Your task to perform on an android device: Search for a new grill on Home Depot Image 0: 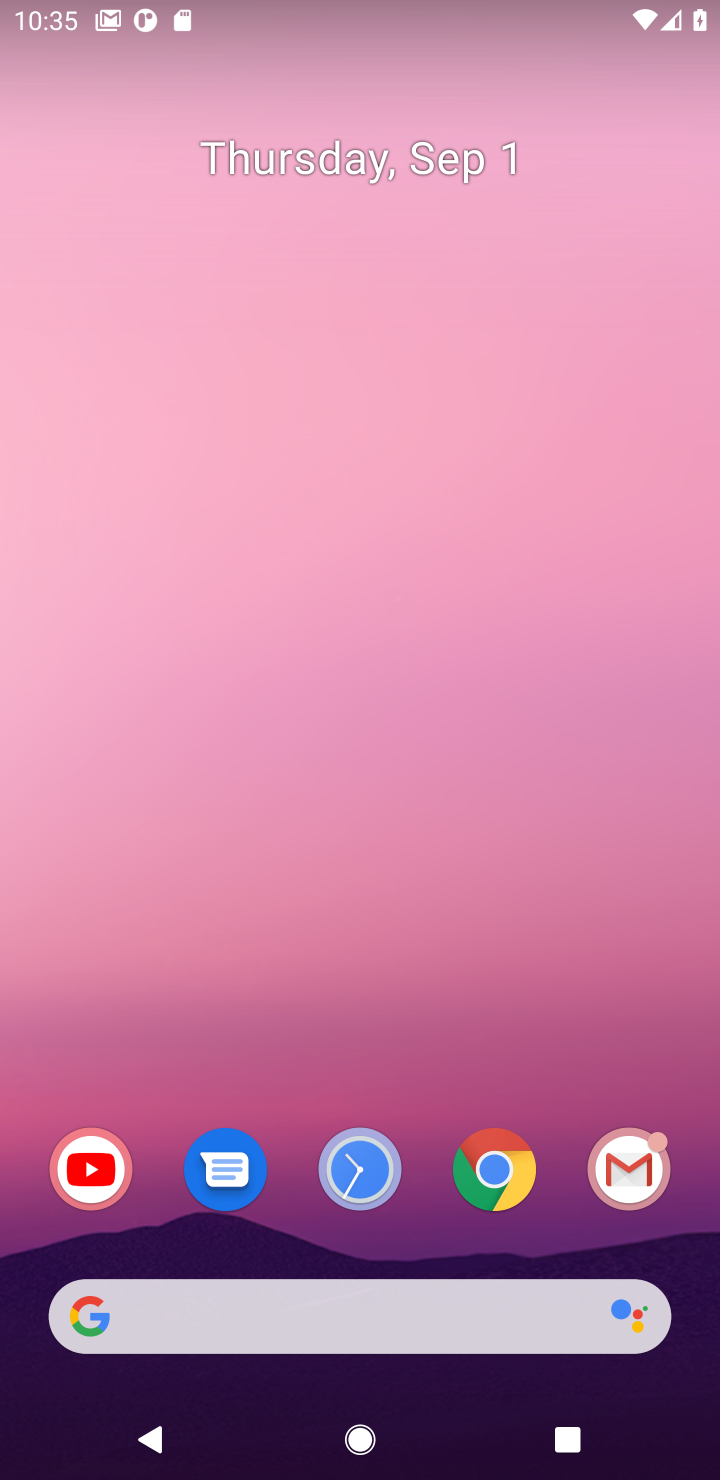
Step 0: drag from (436, 1221) to (483, 94)
Your task to perform on an android device: Search for a new grill on Home Depot Image 1: 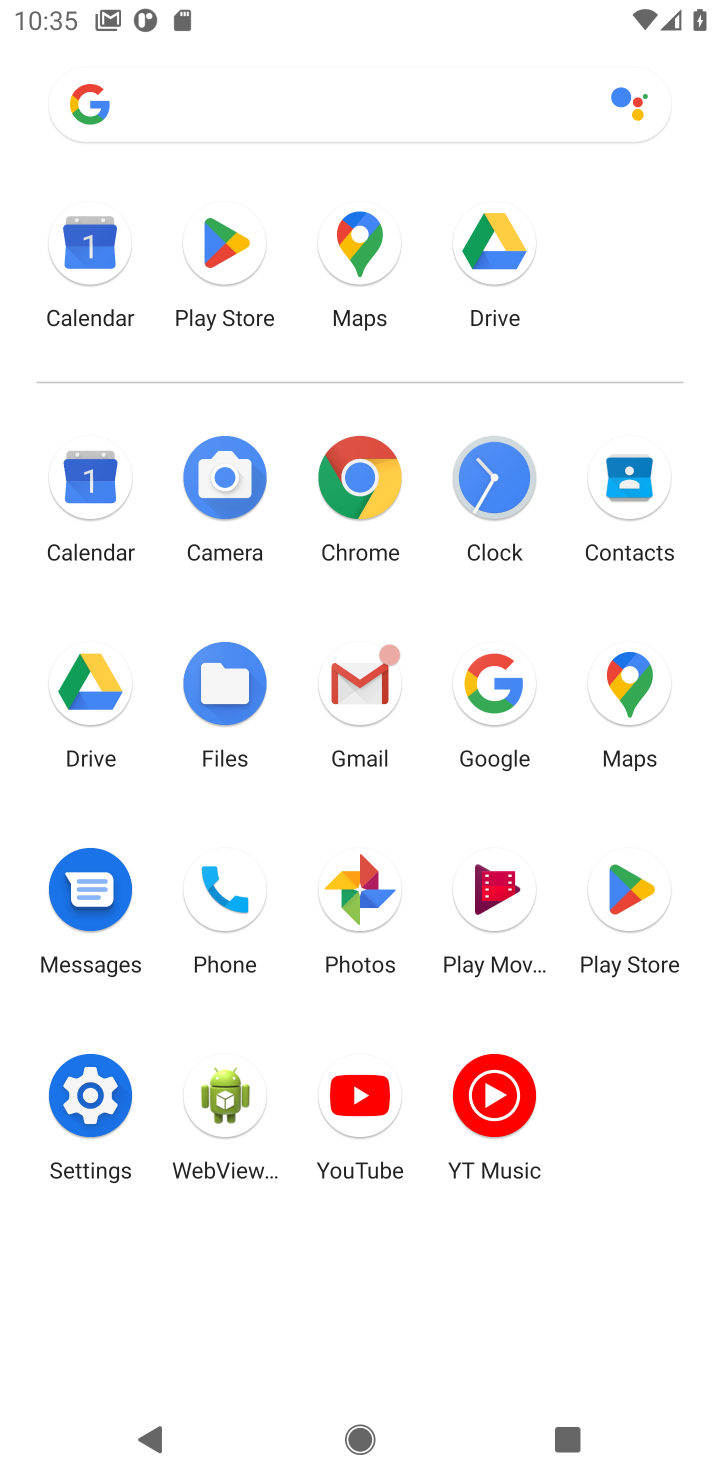
Step 1: click (364, 470)
Your task to perform on an android device: Search for a new grill on Home Depot Image 2: 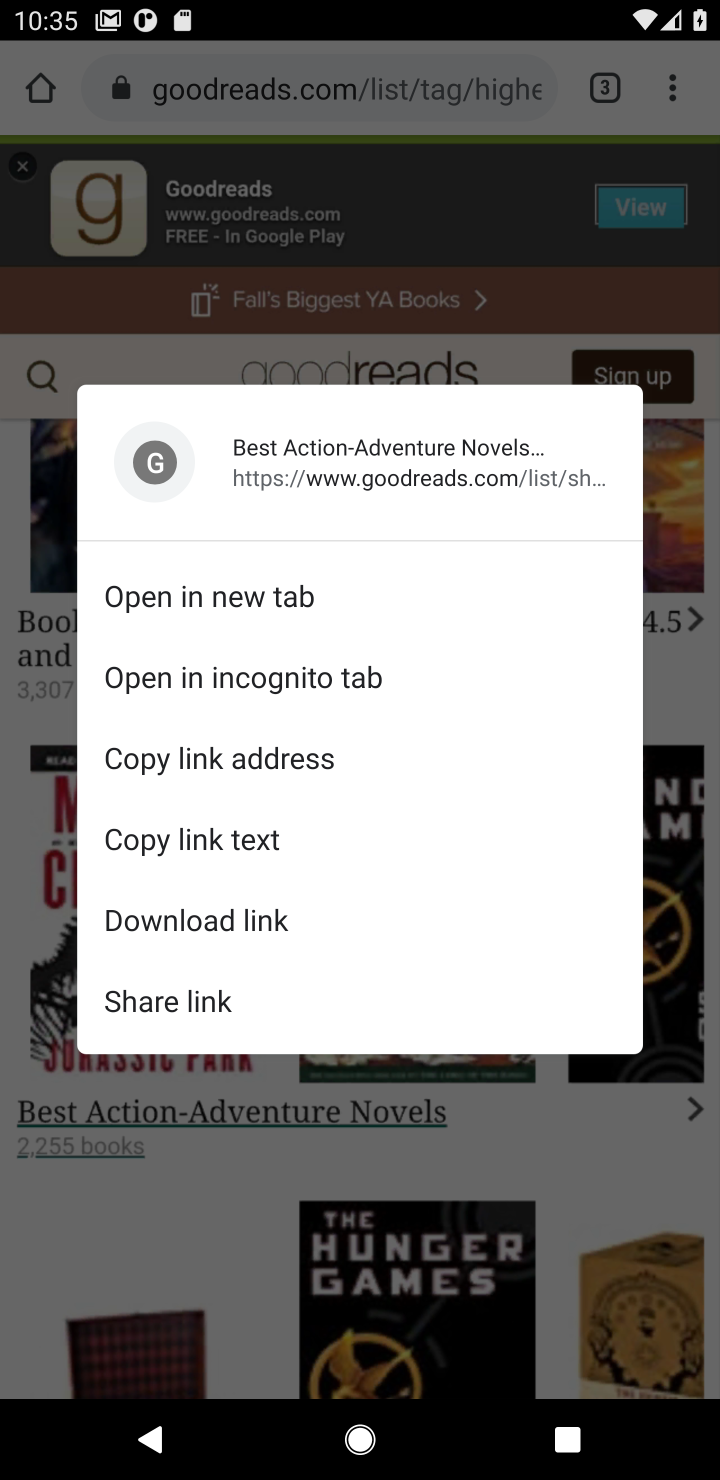
Step 2: click (436, 86)
Your task to perform on an android device: Search for a new grill on Home Depot Image 3: 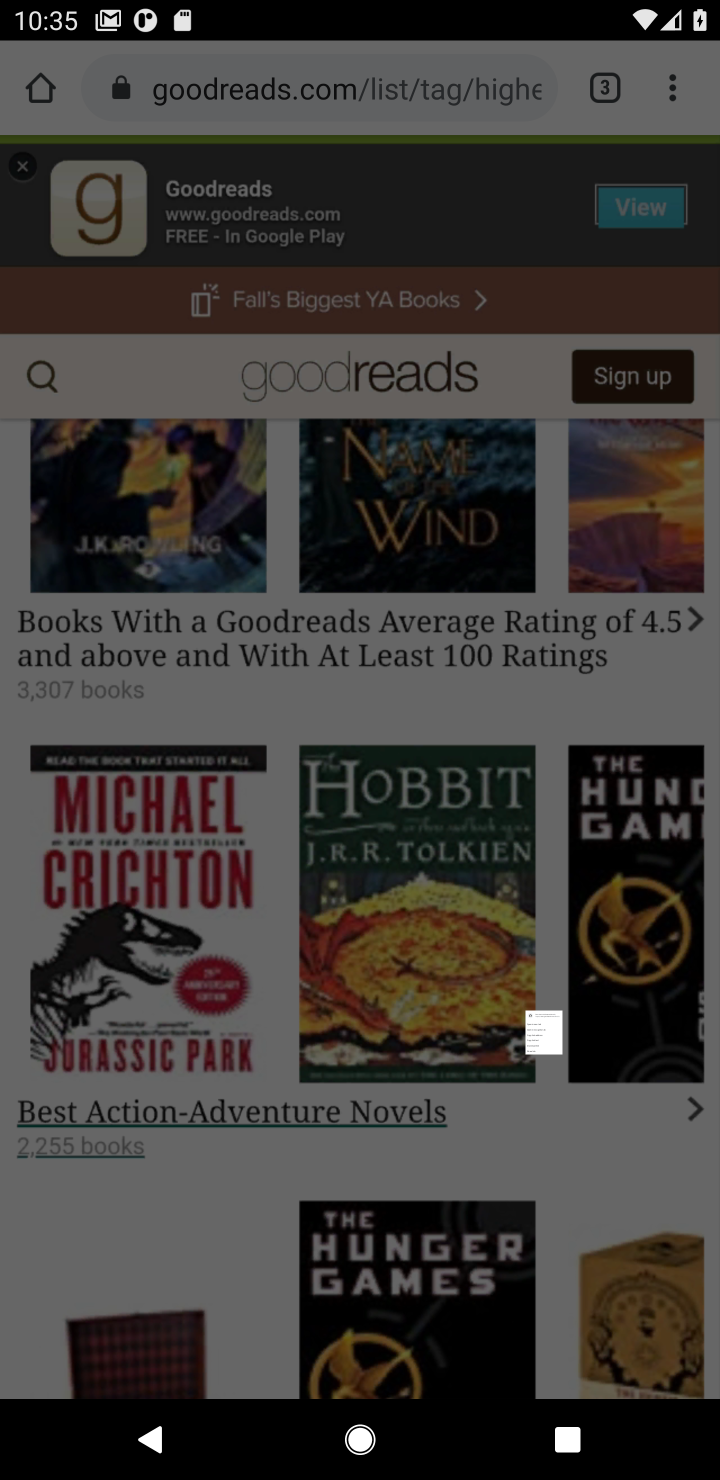
Step 3: click (374, 92)
Your task to perform on an android device: Search for a new grill on Home Depot Image 4: 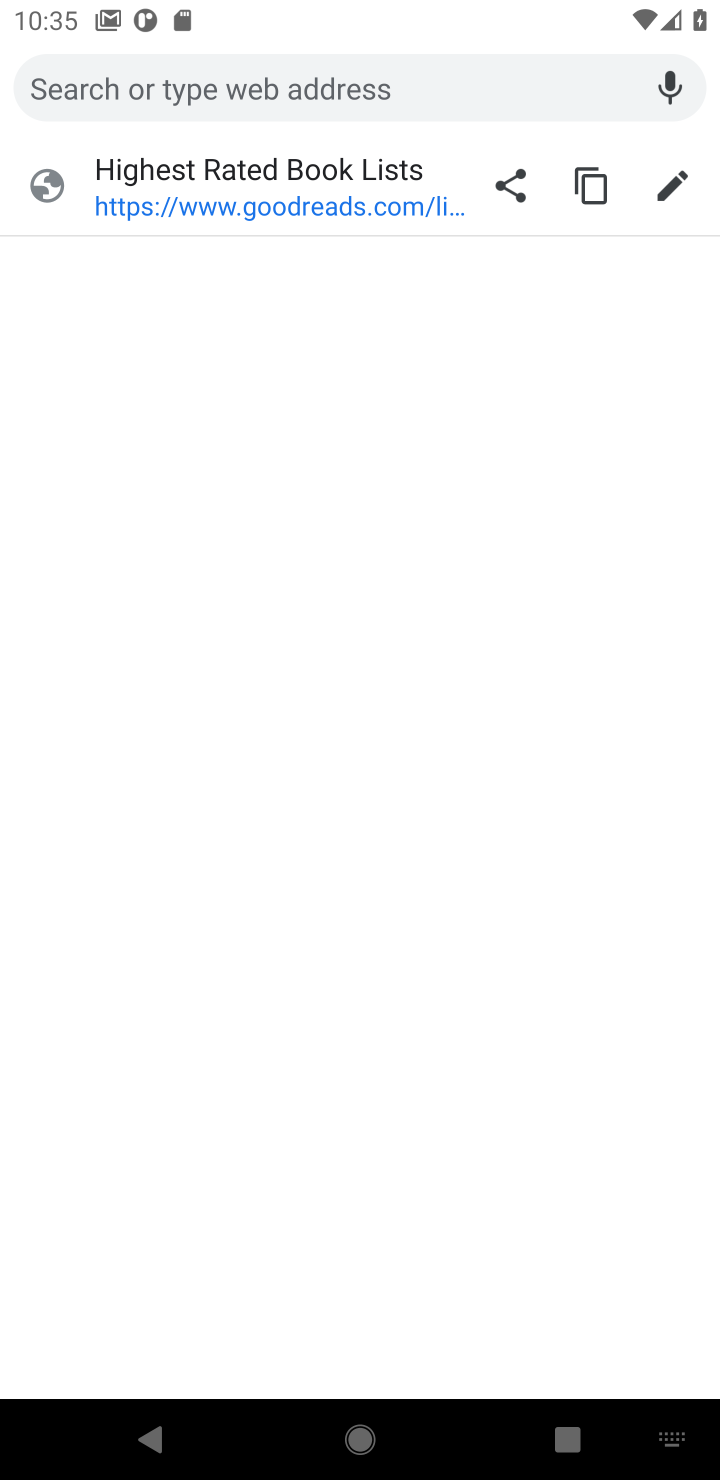
Step 4: type "new grill on Home Depot"
Your task to perform on an android device: Search for a new grill on Home Depot Image 5: 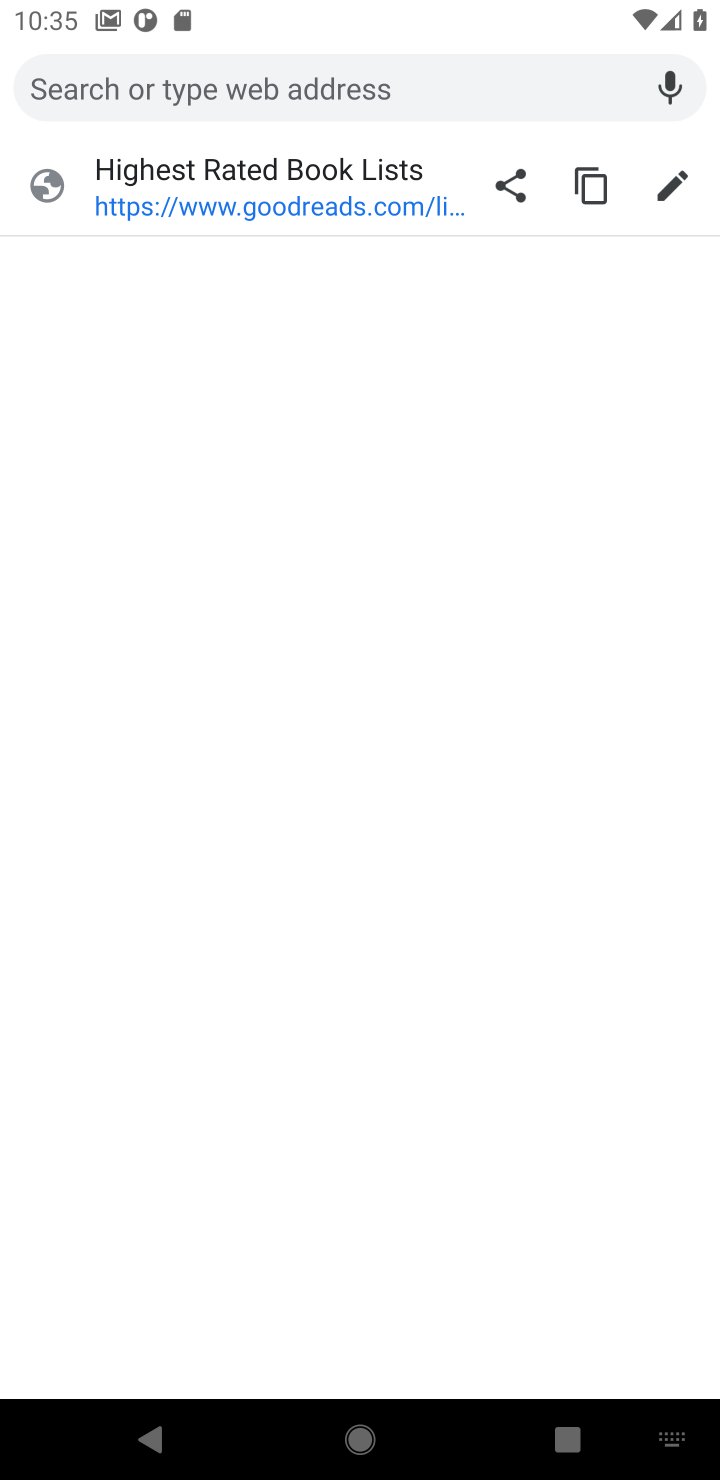
Step 5: click (219, 92)
Your task to perform on an android device: Search for a new grill on Home Depot Image 6: 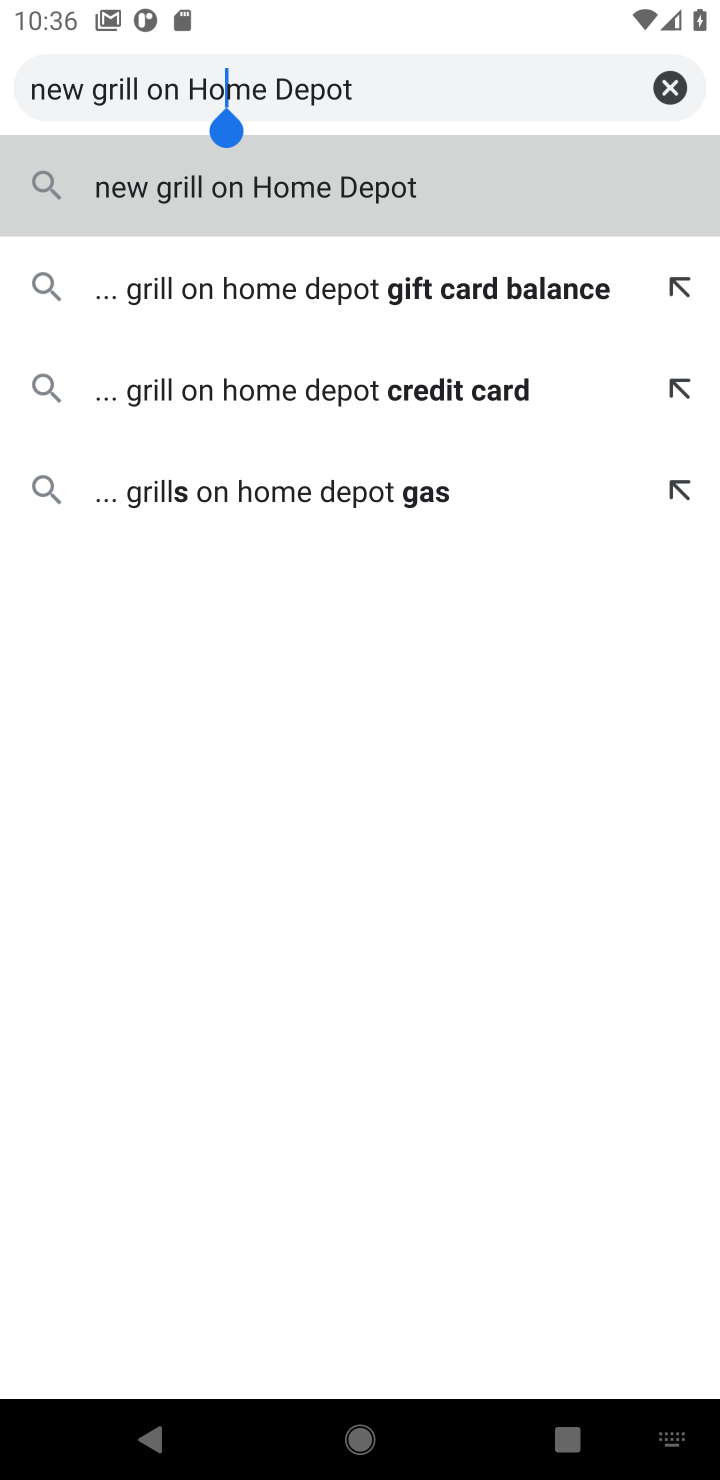
Step 6: type "new grill on Home Depot"
Your task to perform on an android device: Search for a new grill on Home Depot Image 7: 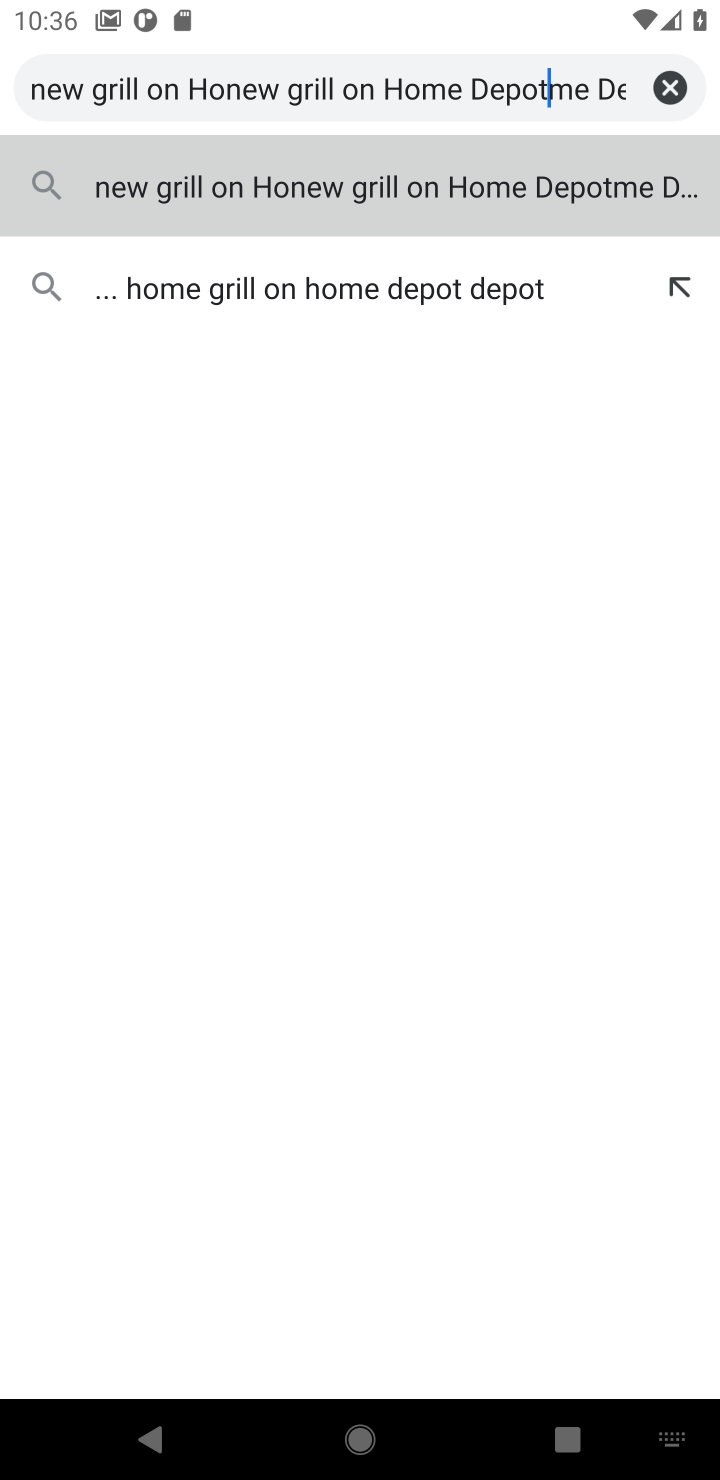
Step 7: click (672, 86)
Your task to perform on an android device: Search for a new grill on Home Depot Image 8: 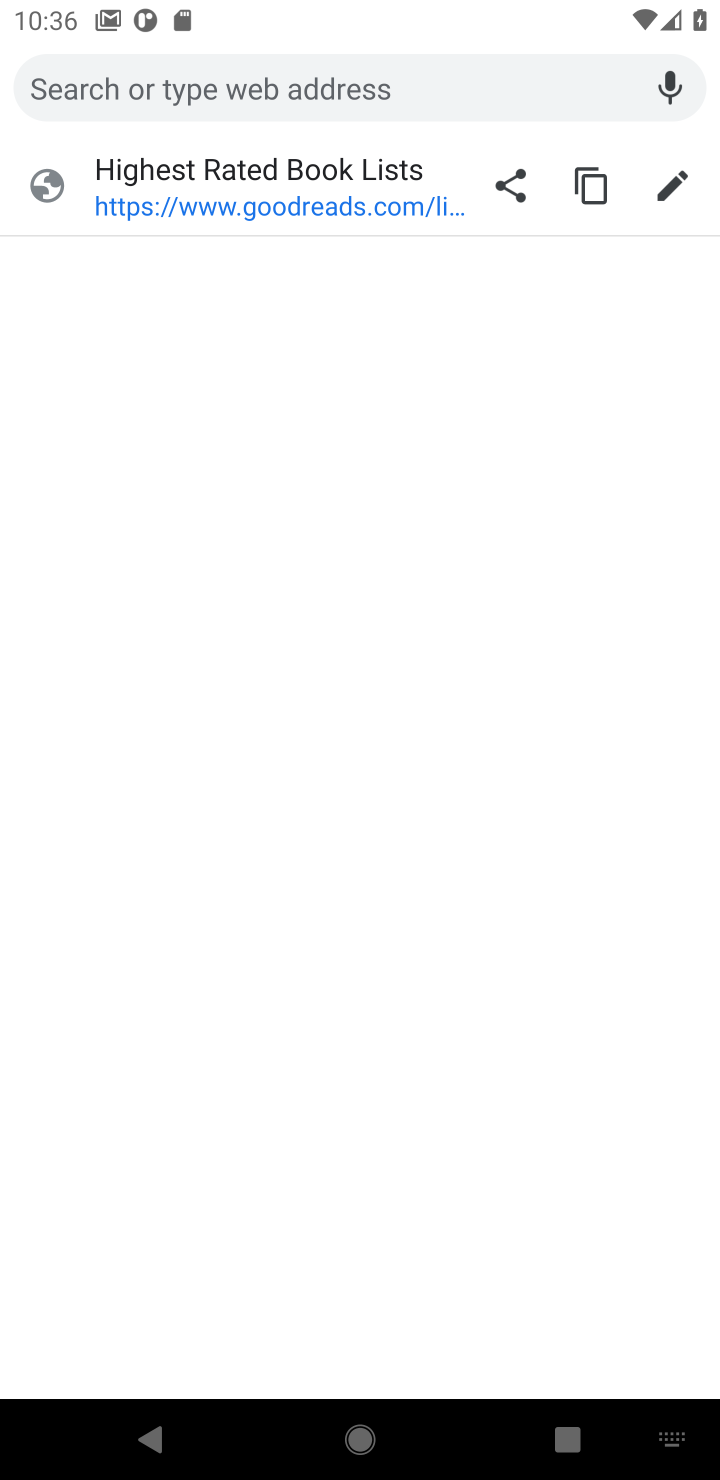
Step 8: type "new grill on Home Depot"
Your task to perform on an android device: Search for a new grill on Home Depot Image 9: 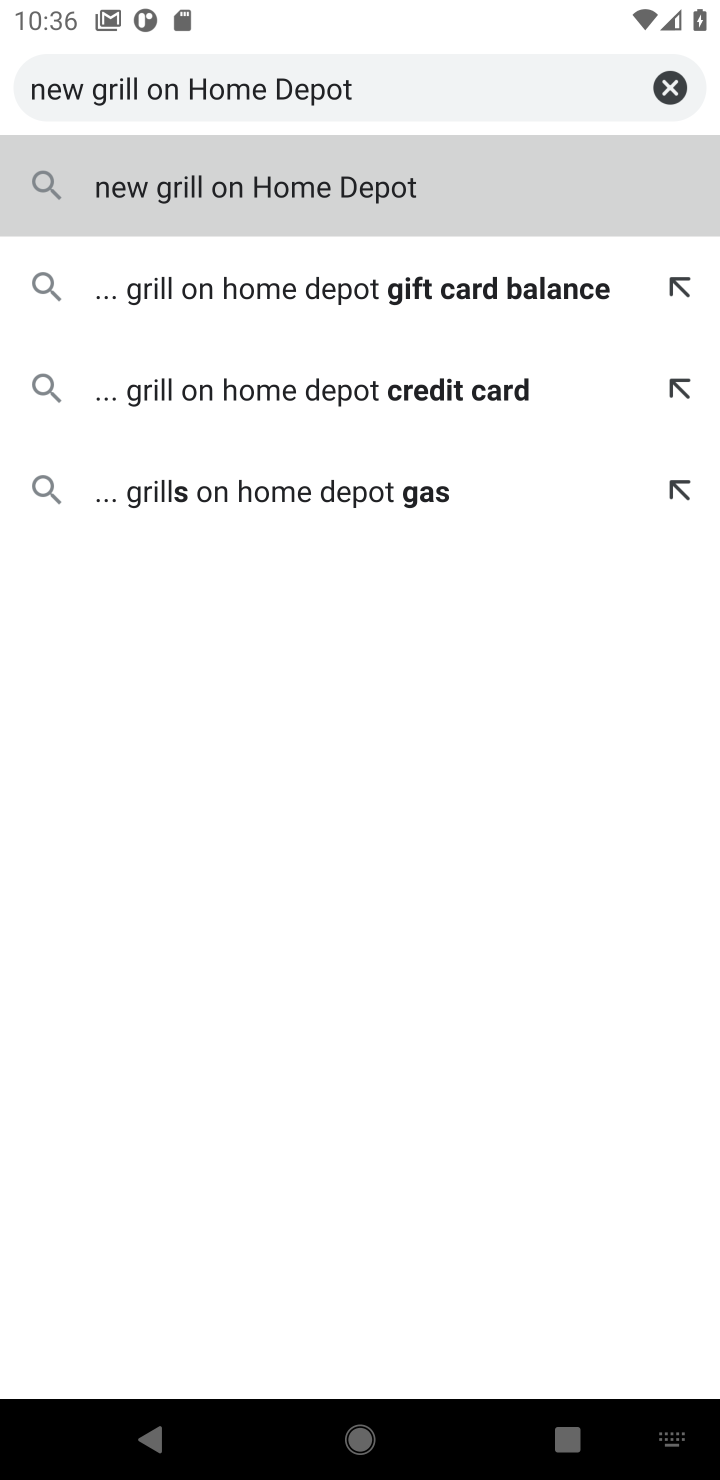
Step 9: click (241, 208)
Your task to perform on an android device: Search for a new grill on Home Depot Image 10: 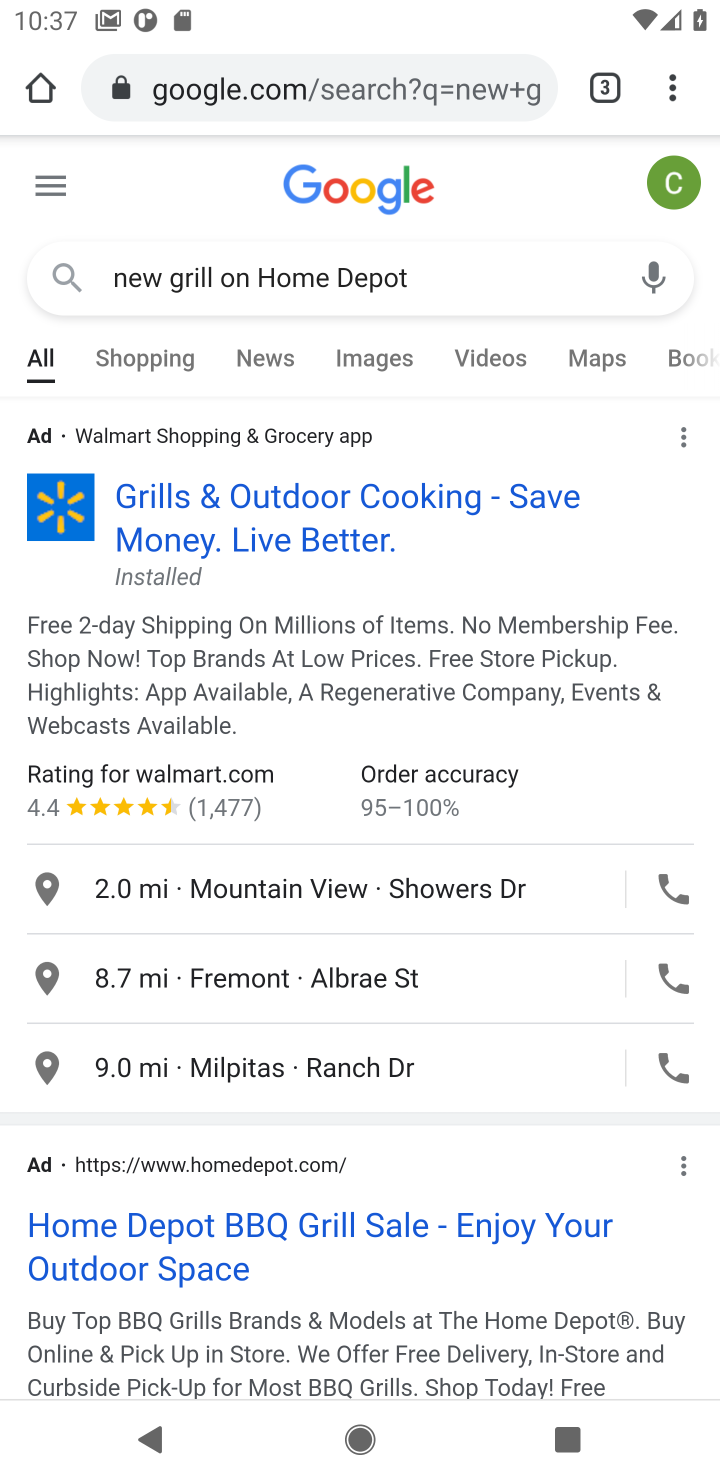
Step 10: drag from (414, 1087) to (442, 515)
Your task to perform on an android device: Search for a new grill on Home Depot Image 11: 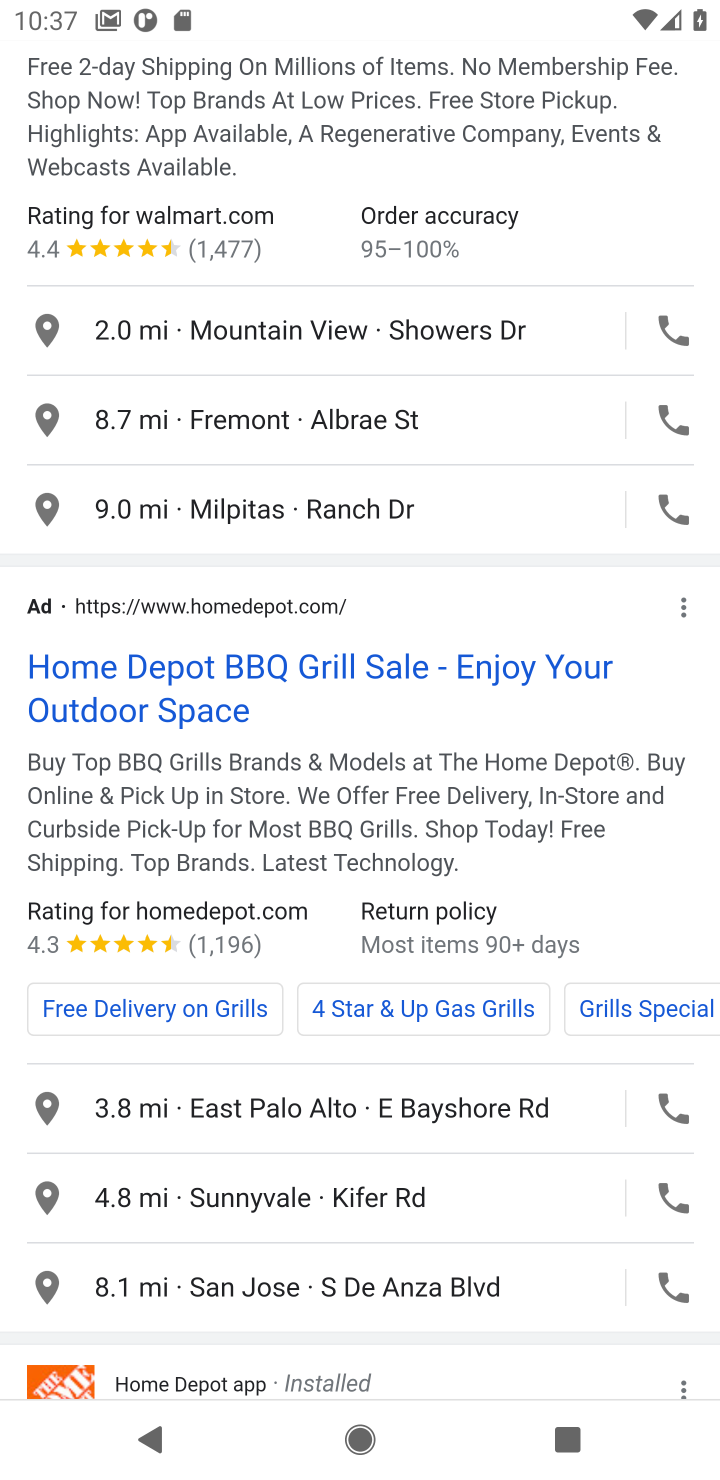
Step 11: click (286, 663)
Your task to perform on an android device: Search for a new grill on Home Depot Image 12: 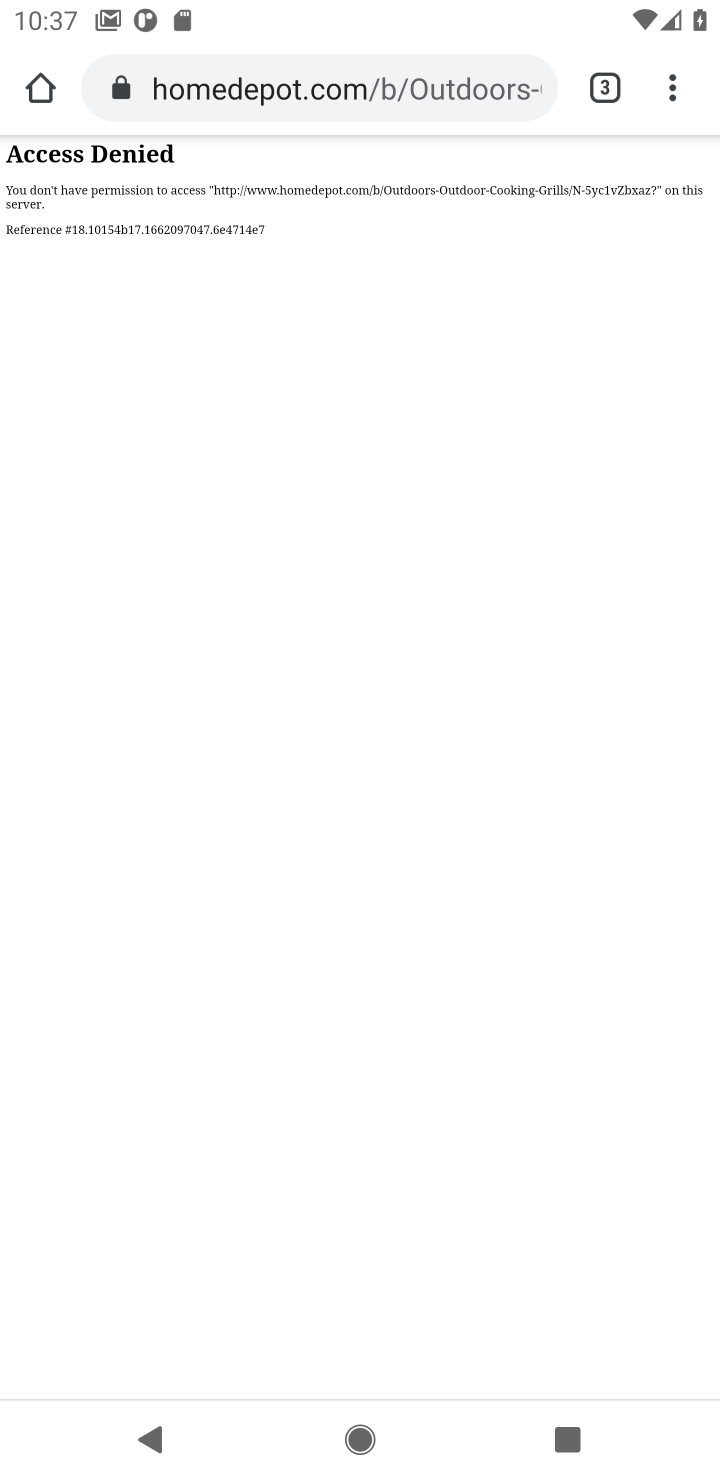
Step 12: task complete